Your task to perform on an android device: Search for "logitech g pro" on amazon, select the first entry, add it to the cart, then select checkout. Image 0: 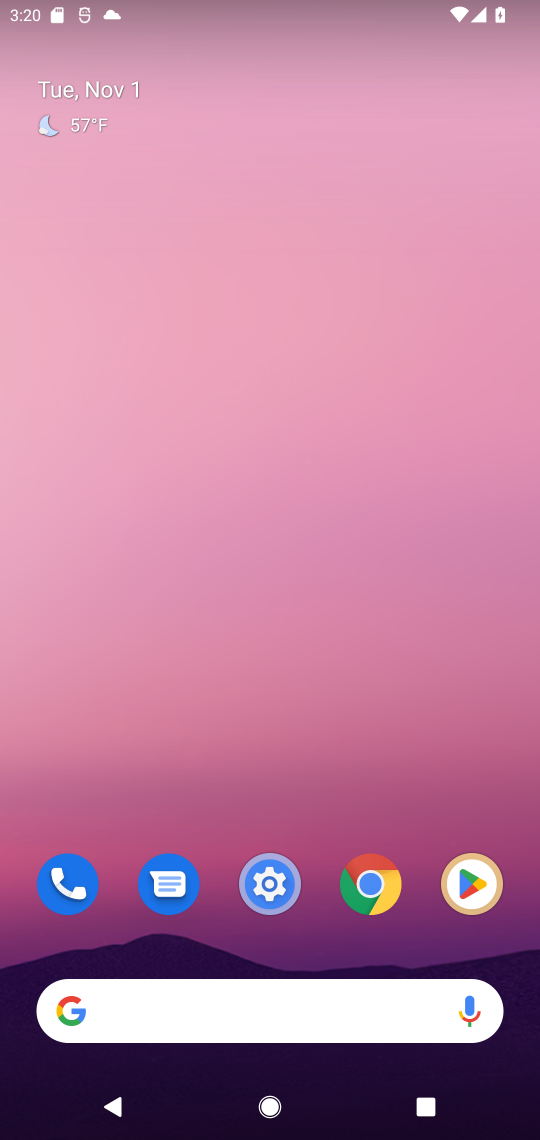
Step 0: press home button
Your task to perform on an android device: Search for "logitech g pro" on amazon, select the first entry, add it to the cart, then select checkout. Image 1: 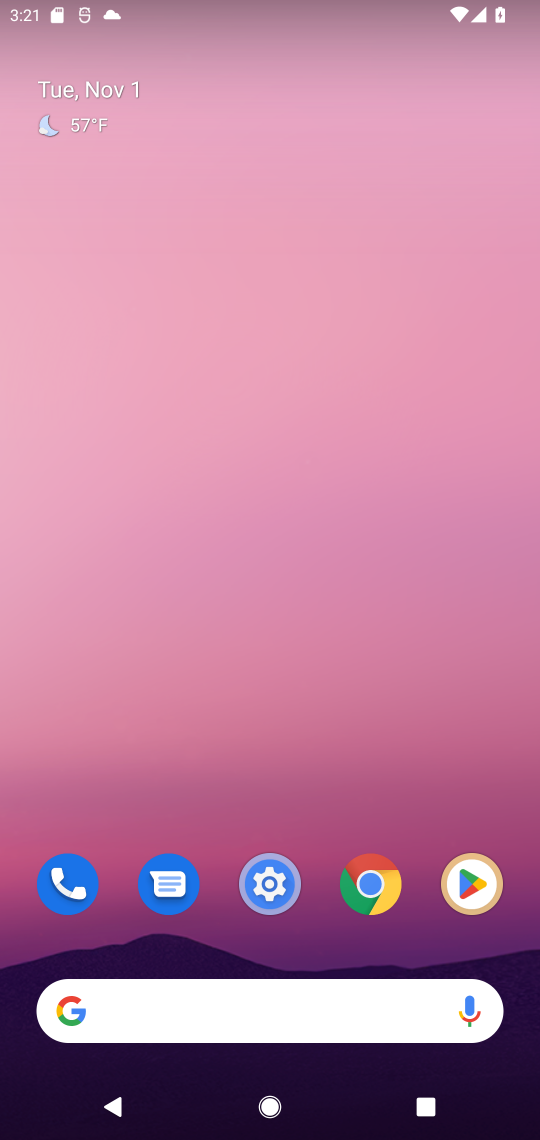
Step 1: press home button
Your task to perform on an android device: Search for "logitech g pro" on amazon, select the first entry, add it to the cart, then select checkout. Image 2: 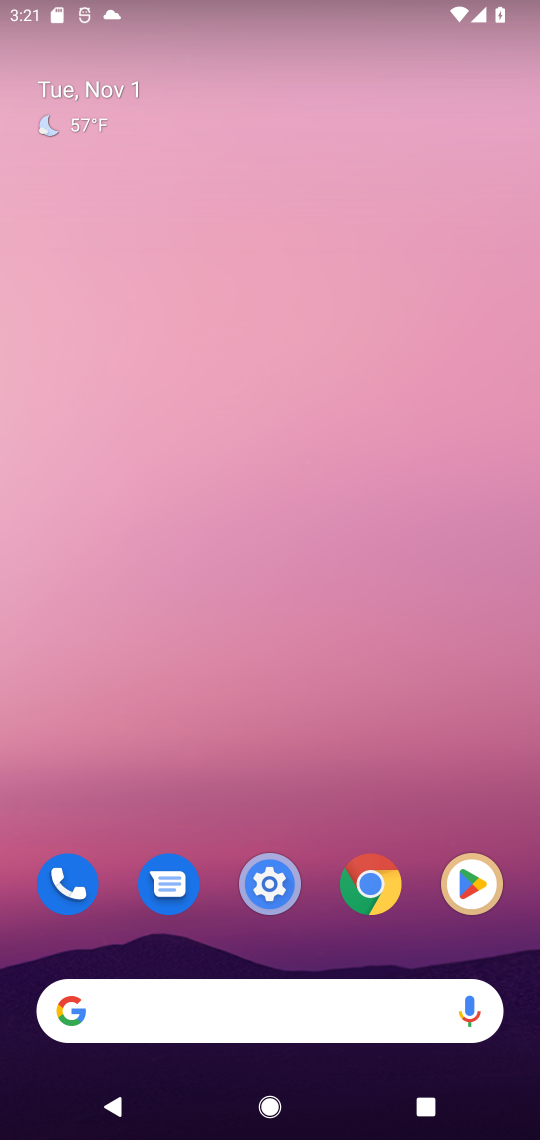
Step 2: click (106, 1002)
Your task to perform on an android device: Search for "logitech g pro" on amazon, select the first entry, add it to the cart, then select checkout. Image 3: 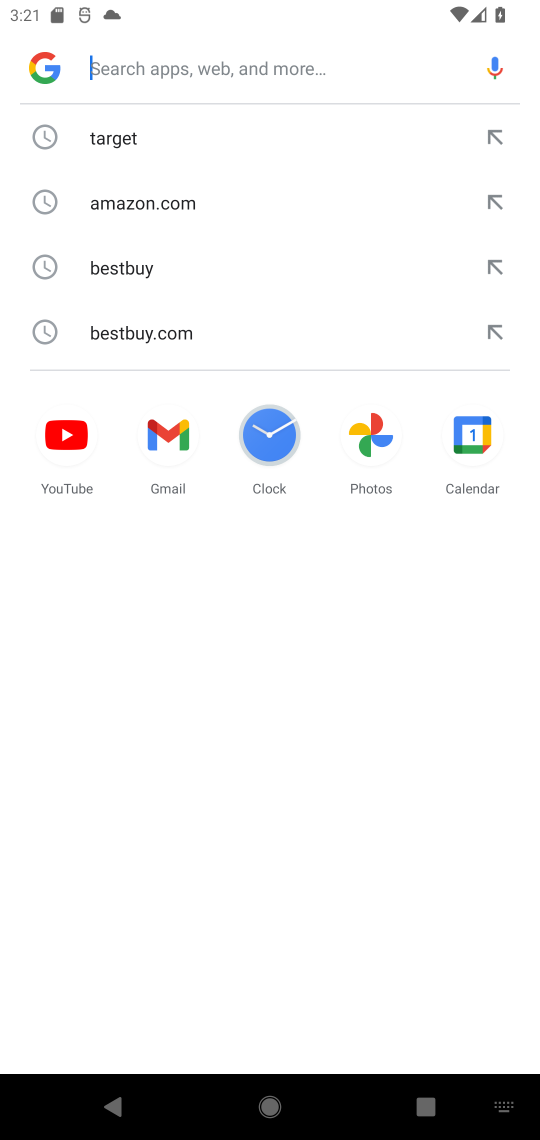
Step 3: type "amazon"
Your task to perform on an android device: Search for "logitech g pro" on amazon, select the first entry, add it to the cart, then select checkout. Image 4: 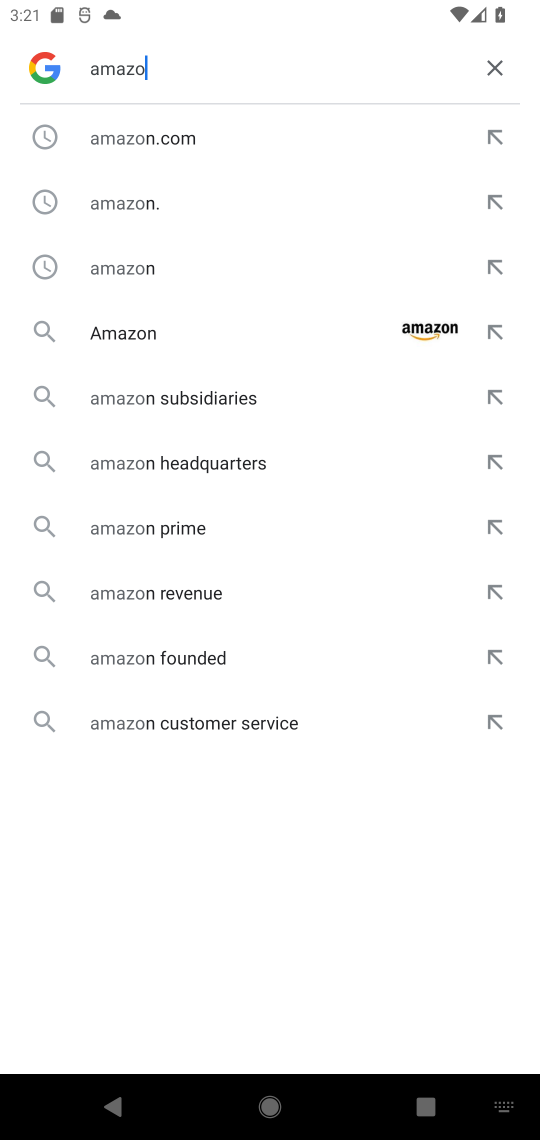
Step 4: press enter
Your task to perform on an android device: Search for "logitech g pro" on amazon, select the first entry, add it to the cart, then select checkout. Image 5: 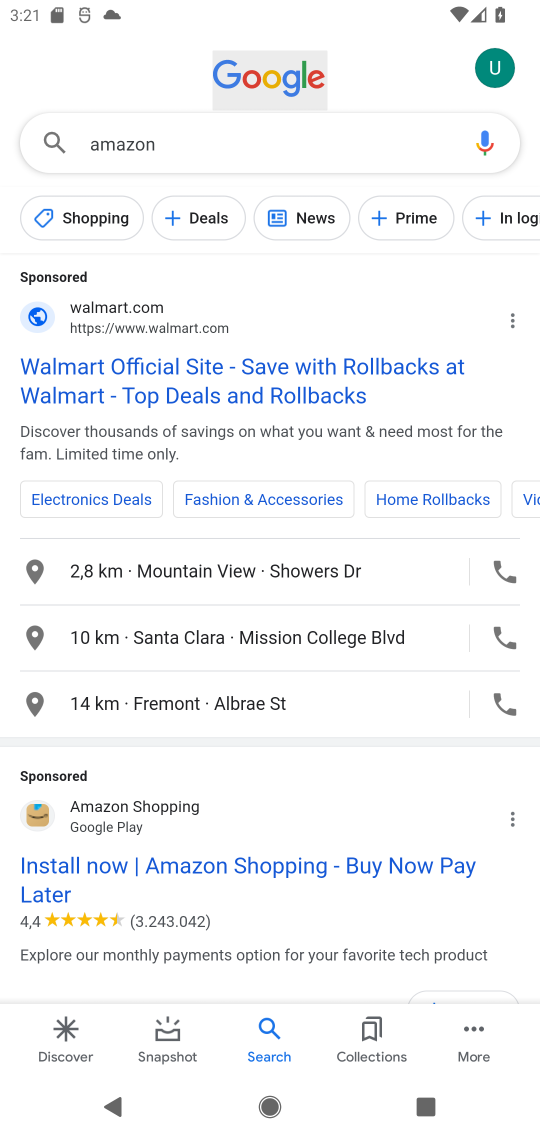
Step 5: drag from (303, 813) to (308, 557)
Your task to perform on an android device: Search for "logitech g pro" on amazon, select the first entry, add it to the cart, then select checkout. Image 6: 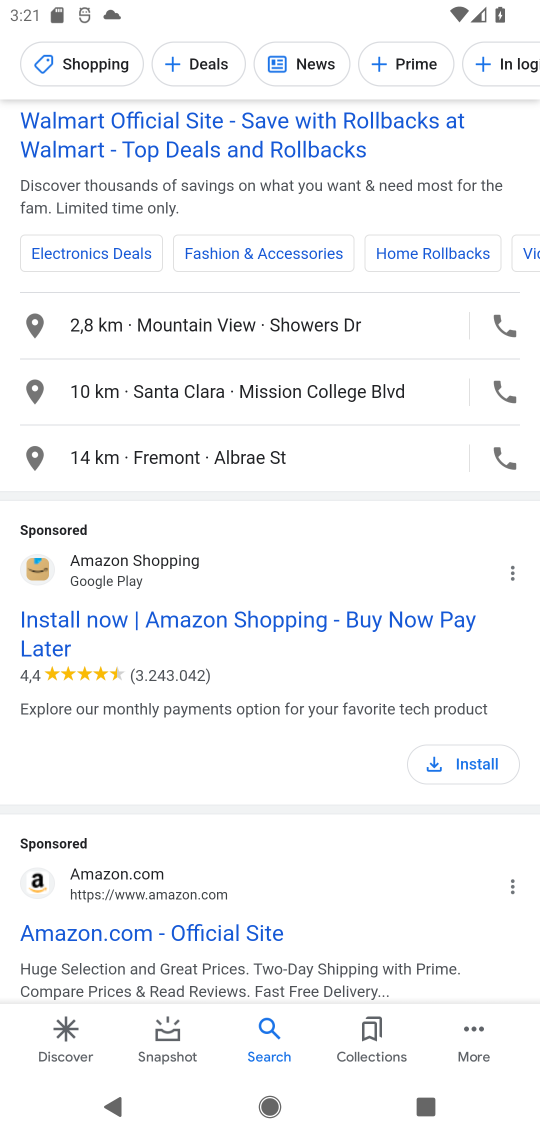
Step 6: click (196, 937)
Your task to perform on an android device: Search for "logitech g pro" on amazon, select the first entry, add it to the cart, then select checkout. Image 7: 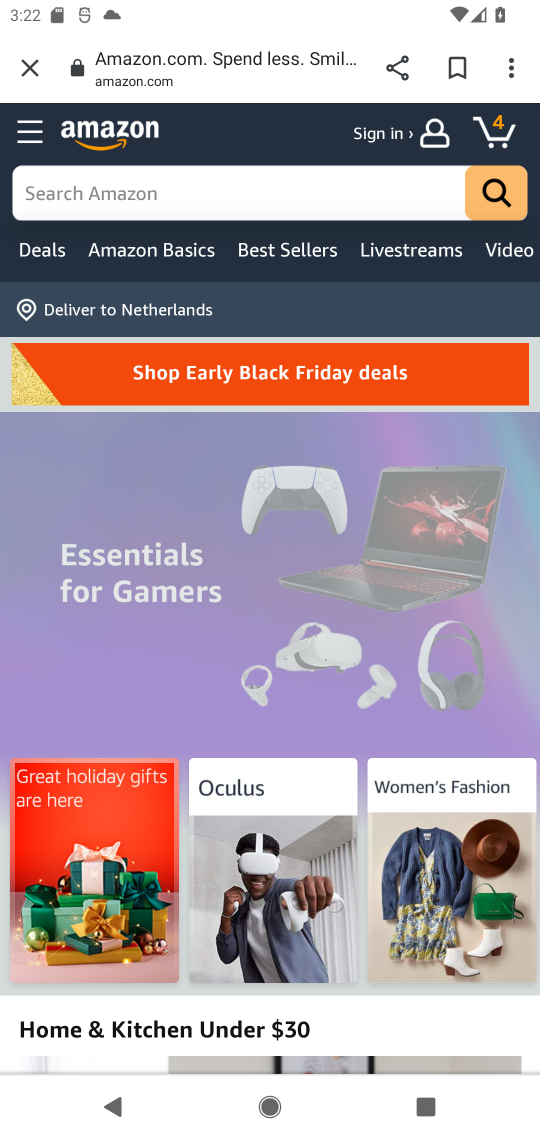
Step 7: click (51, 193)
Your task to perform on an android device: Search for "logitech g pro" on amazon, select the first entry, add it to the cart, then select checkout. Image 8: 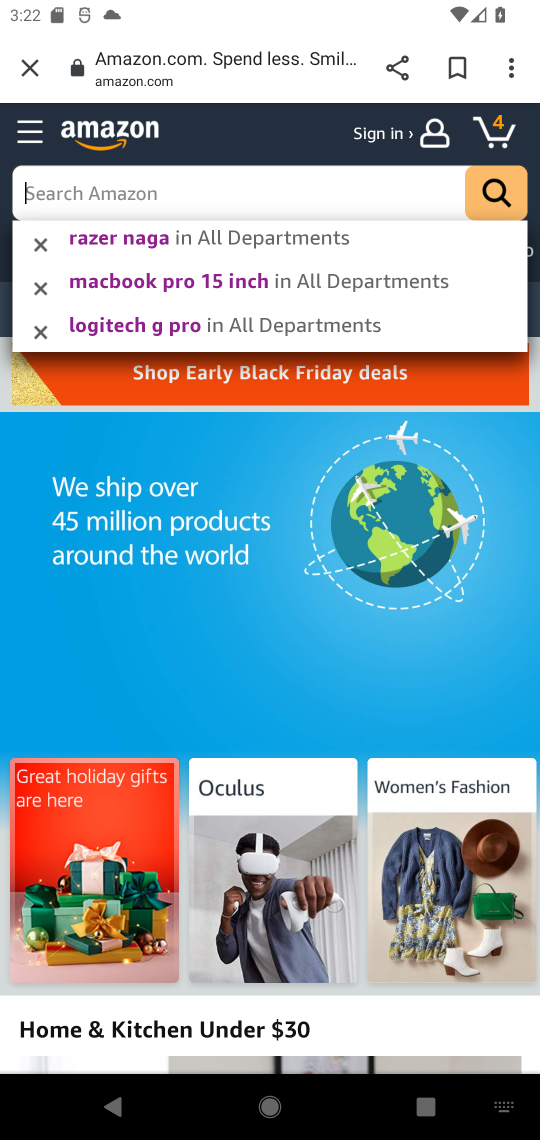
Step 8: type "logitech g pro"
Your task to perform on an android device: Search for "logitech g pro" on amazon, select the first entry, add it to the cart, then select checkout. Image 9: 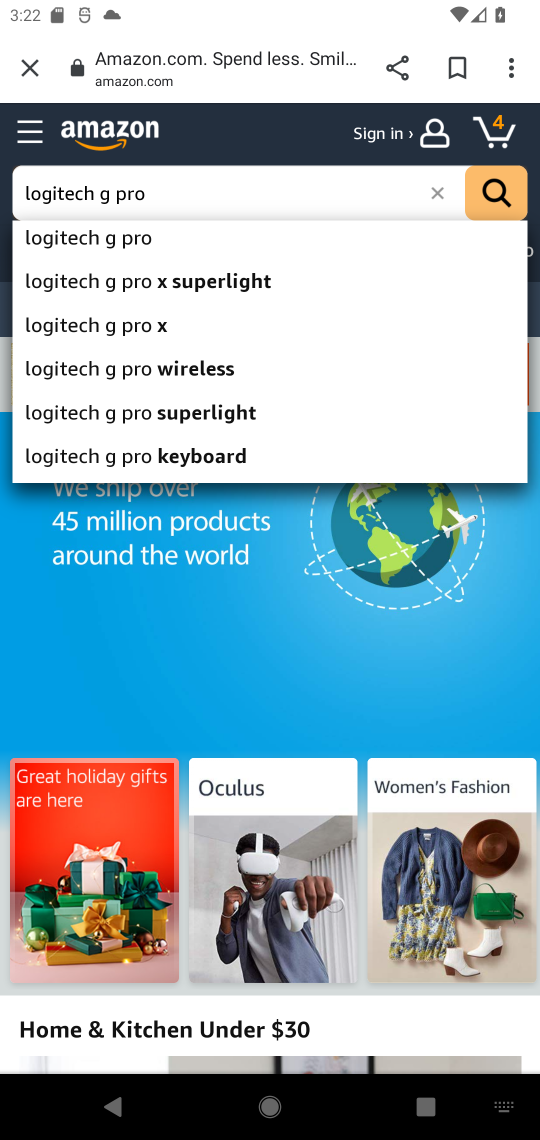
Step 9: click (492, 197)
Your task to perform on an android device: Search for "logitech g pro" on amazon, select the first entry, add it to the cart, then select checkout. Image 10: 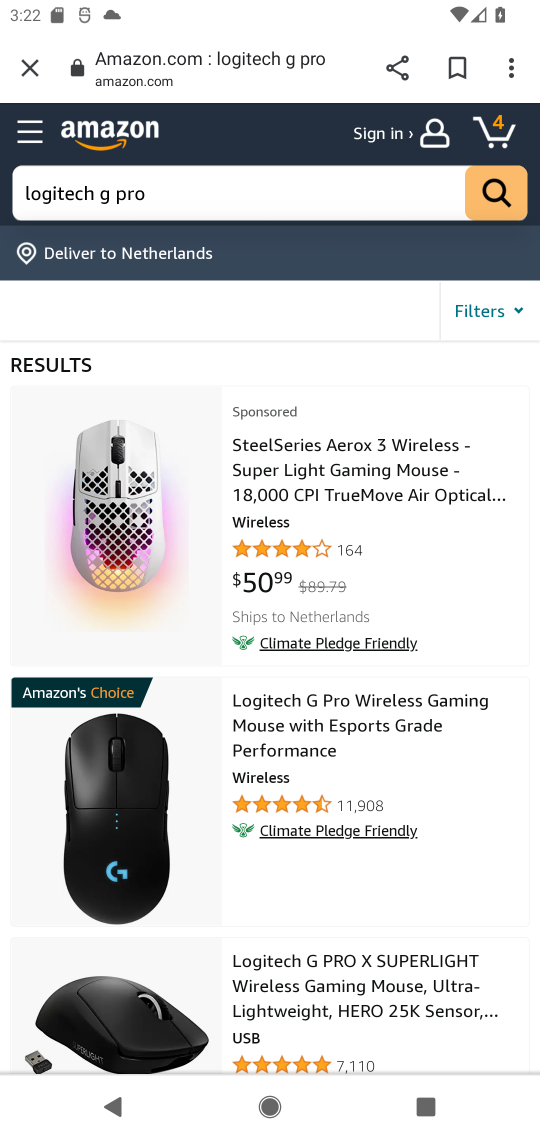
Step 10: click (349, 721)
Your task to perform on an android device: Search for "logitech g pro" on amazon, select the first entry, add it to the cart, then select checkout. Image 11: 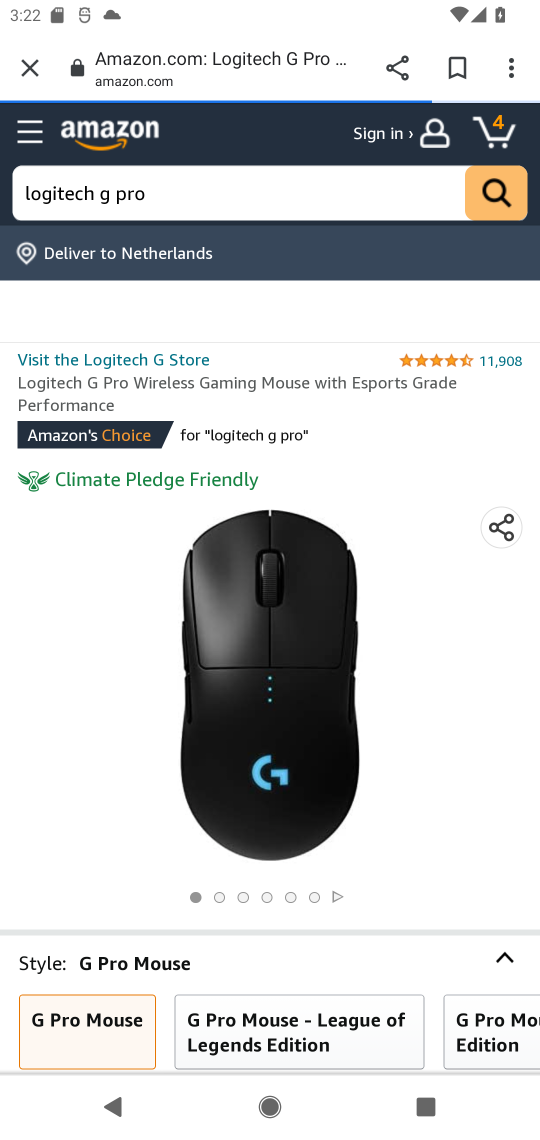
Step 11: drag from (388, 911) to (407, 546)
Your task to perform on an android device: Search for "logitech g pro" on amazon, select the first entry, add it to the cart, then select checkout. Image 12: 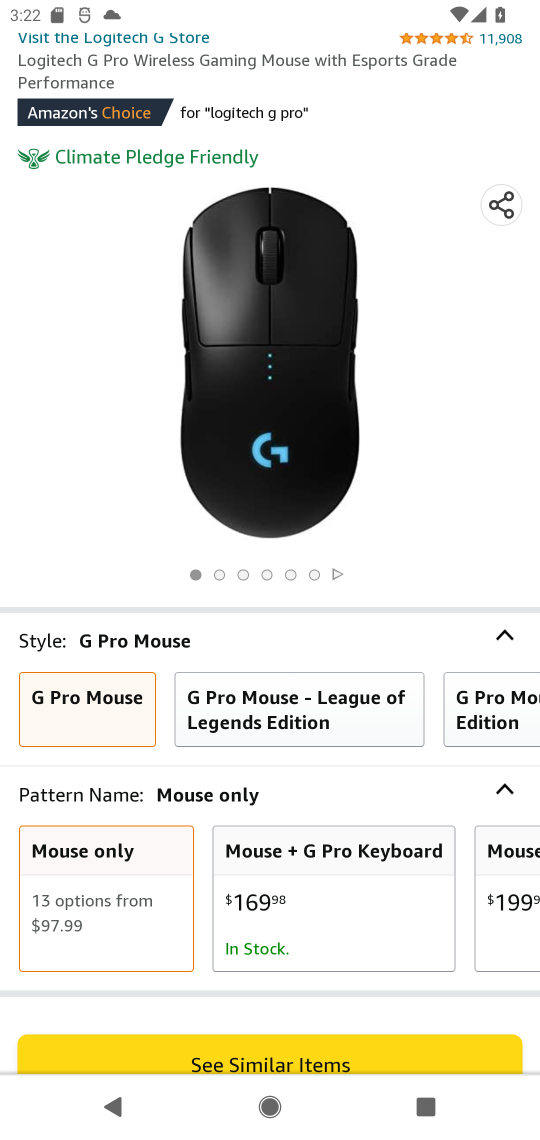
Step 12: drag from (386, 838) to (405, 533)
Your task to perform on an android device: Search for "logitech g pro" on amazon, select the first entry, add it to the cart, then select checkout. Image 13: 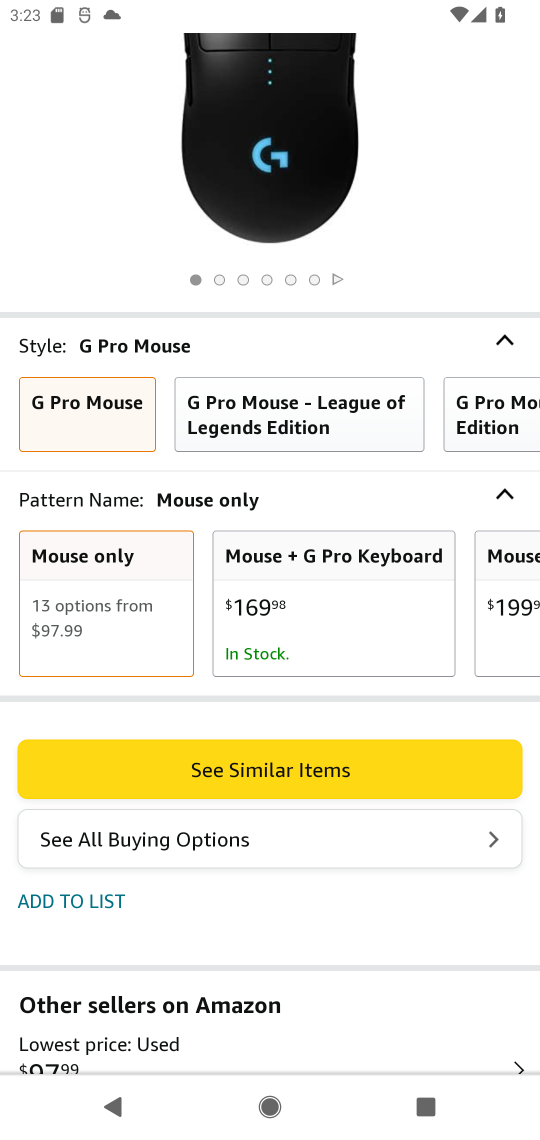
Step 13: drag from (336, 889) to (350, 525)
Your task to perform on an android device: Search for "logitech g pro" on amazon, select the first entry, add it to the cart, then select checkout. Image 14: 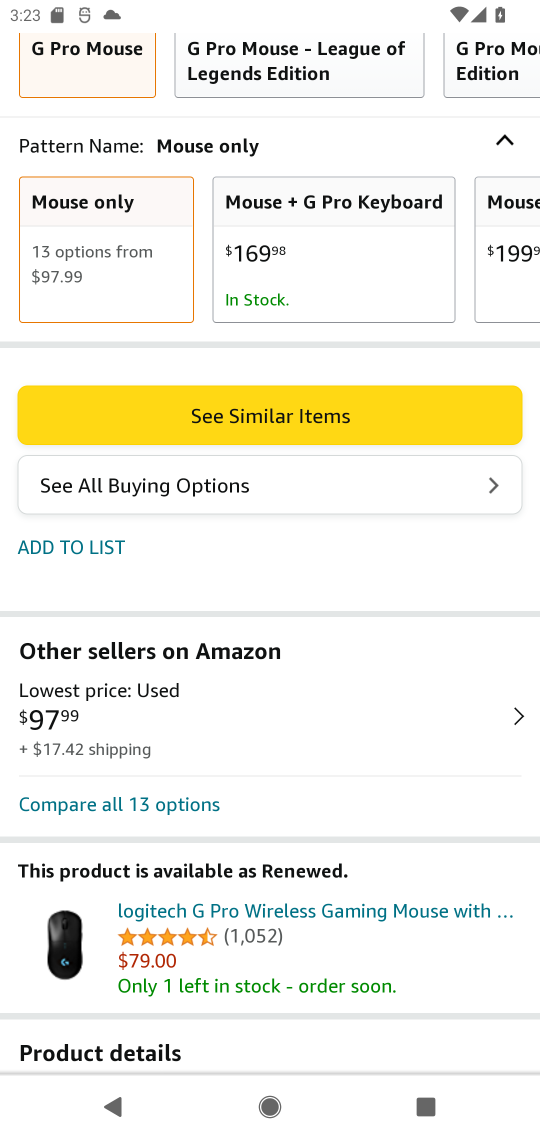
Step 14: drag from (338, 891) to (336, 509)
Your task to perform on an android device: Search for "logitech g pro" on amazon, select the first entry, add it to the cart, then select checkout. Image 15: 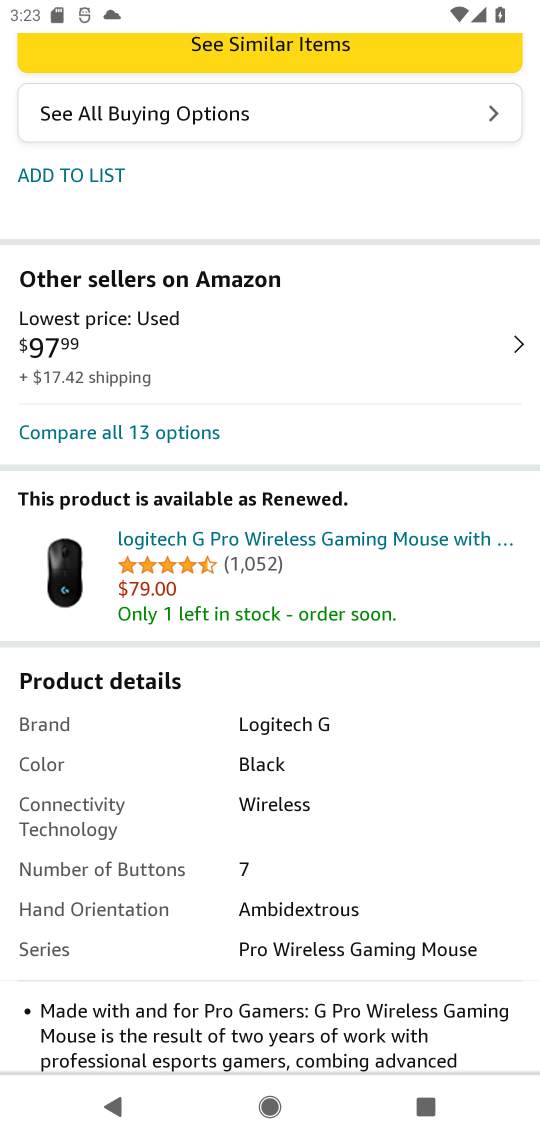
Step 15: press back button
Your task to perform on an android device: Search for "logitech g pro" on amazon, select the first entry, add it to the cart, then select checkout. Image 16: 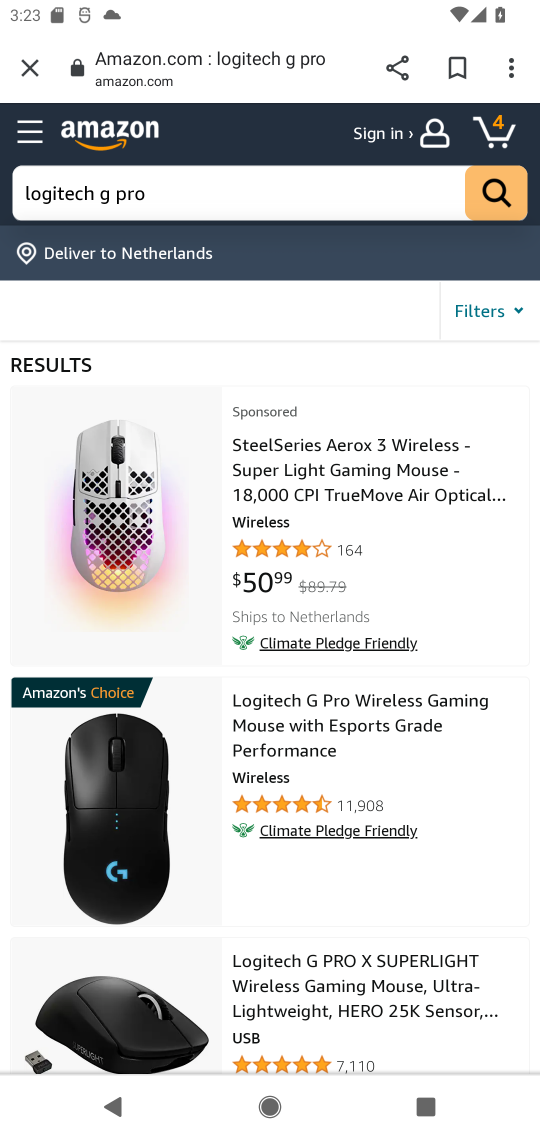
Step 16: drag from (387, 996) to (384, 593)
Your task to perform on an android device: Search for "logitech g pro" on amazon, select the first entry, add it to the cart, then select checkout. Image 17: 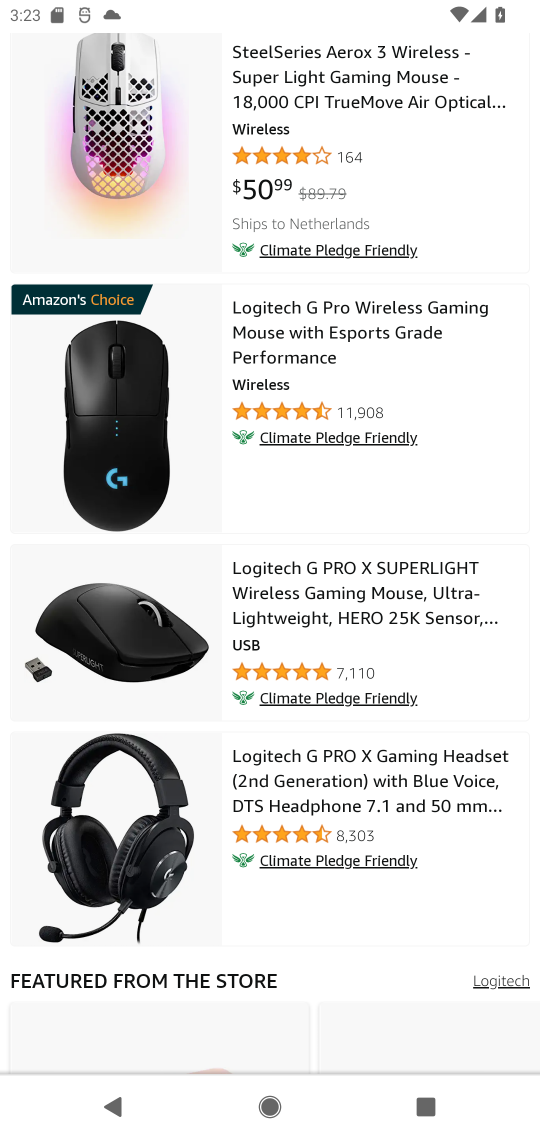
Step 17: click (335, 614)
Your task to perform on an android device: Search for "logitech g pro" on amazon, select the first entry, add it to the cart, then select checkout. Image 18: 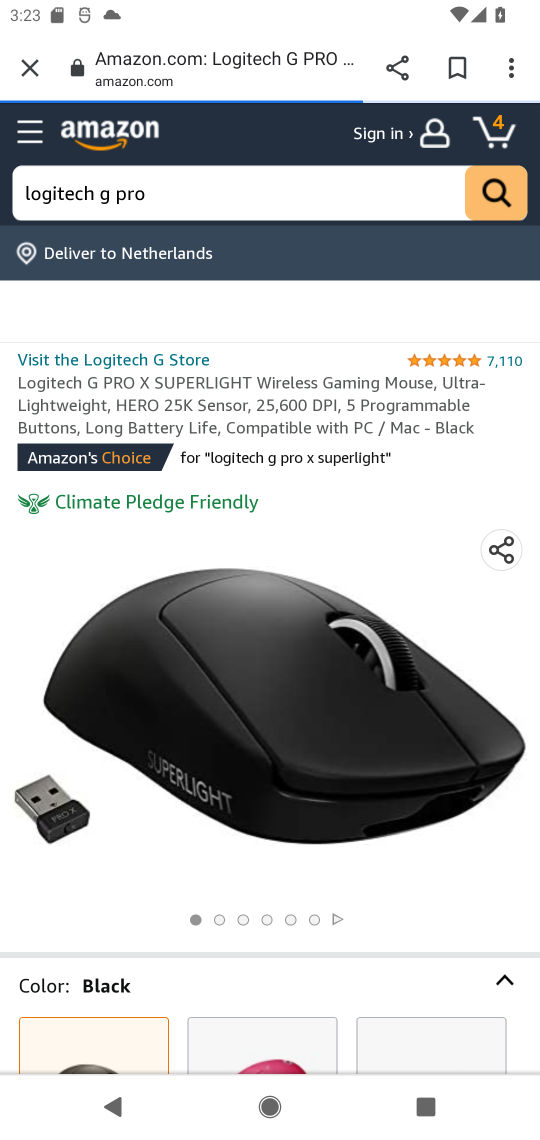
Step 18: task complete